Your task to perform on an android device: Add logitech g903 to the cart on newegg.com Image 0: 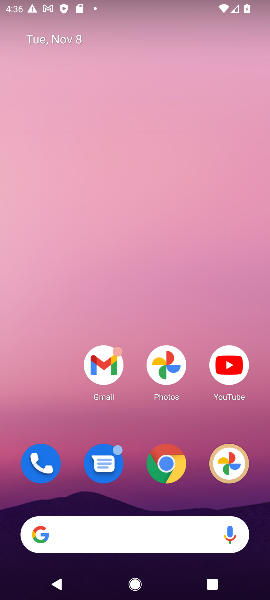
Step 0: click (167, 472)
Your task to perform on an android device: Add logitech g903 to the cart on newegg.com Image 1: 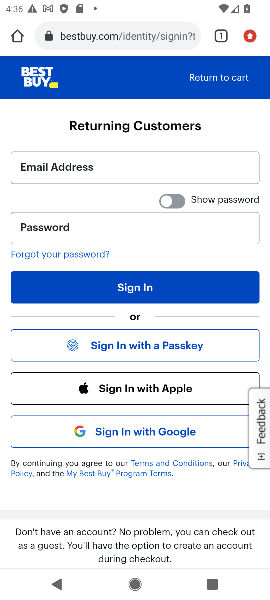
Step 1: click (76, 31)
Your task to perform on an android device: Add logitech g903 to the cart on newegg.com Image 2: 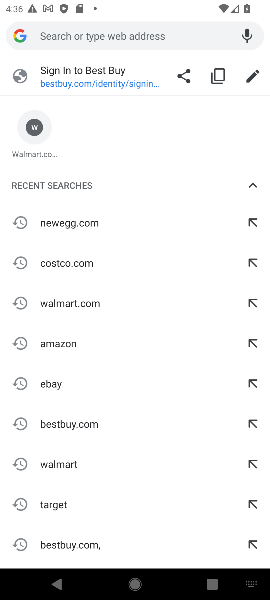
Step 2: click (77, 227)
Your task to perform on an android device: Add logitech g903 to the cart on newegg.com Image 3: 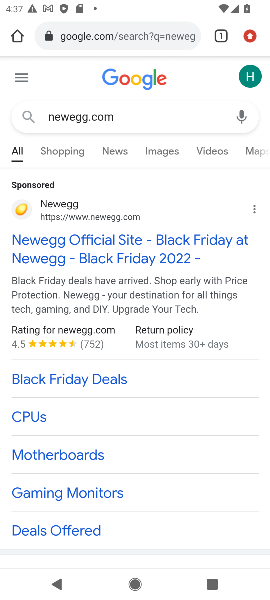
Step 3: click (110, 258)
Your task to perform on an android device: Add logitech g903 to the cart on newegg.com Image 4: 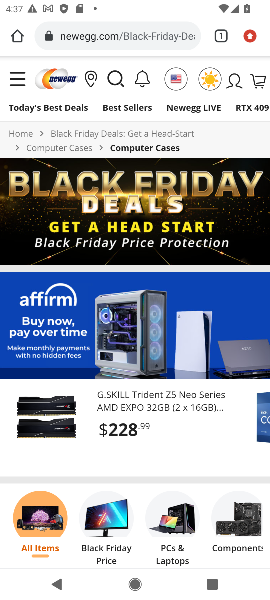
Step 4: click (113, 79)
Your task to perform on an android device: Add logitech g903 to the cart on newegg.com Image 5: 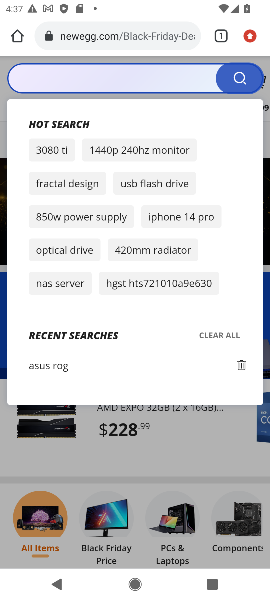
Step 5: click (129, 73)
Your task to perform on an android device: Add logitech g903 to the cart on newegg.com Image 6: 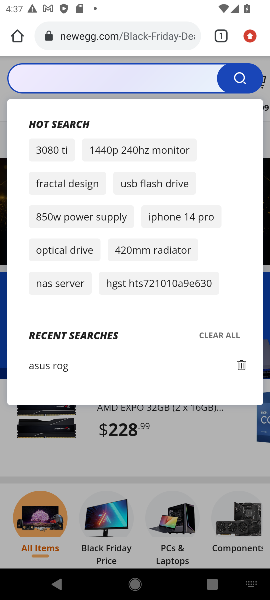
Step 6: type "logitech g903"
Your task to perform on an android device: Add logitech g903 to the cart on newegg.com Image 7: 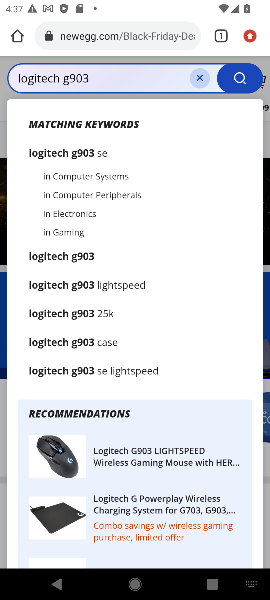
Step 7: click (233, 72)
Your task to perform on an android device: Add logitech g903 to the cart on newegg.com Image 8: 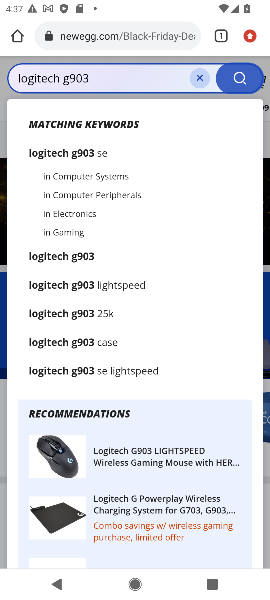
Step 8: click (244, 85)
Your task to perform on an android device: Add logitech g903 to the cart on newegg.com Image 9: 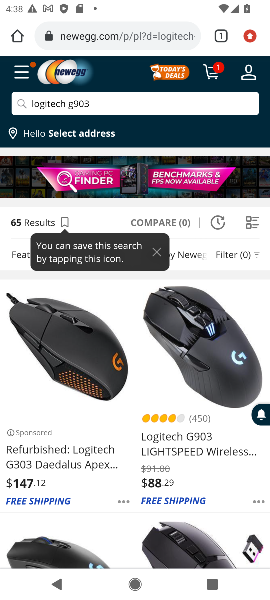
Step 9: click (190, 448)
Your task to perform on an android device: Add logitech g903 to the cart on newegg.com Image 10: 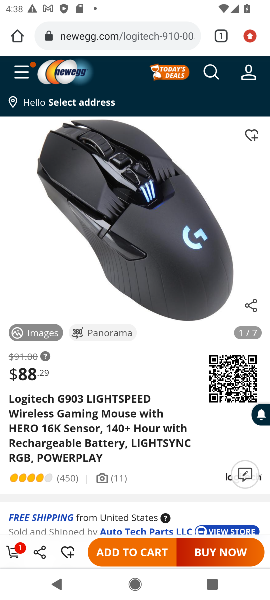
Step 10: click (131, 551)
Your task to perform on an android device: Add logitech g903 to the cart on newegg.com Image 11: 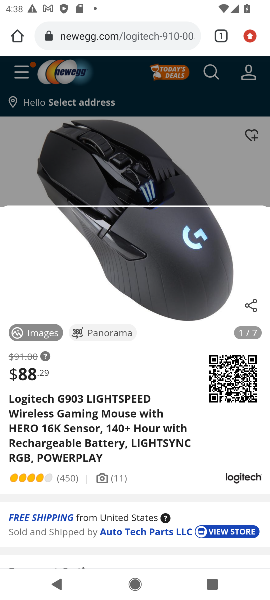
Step 11: task complete